Your task to perform on an android device: turn notification dots on Image 0: 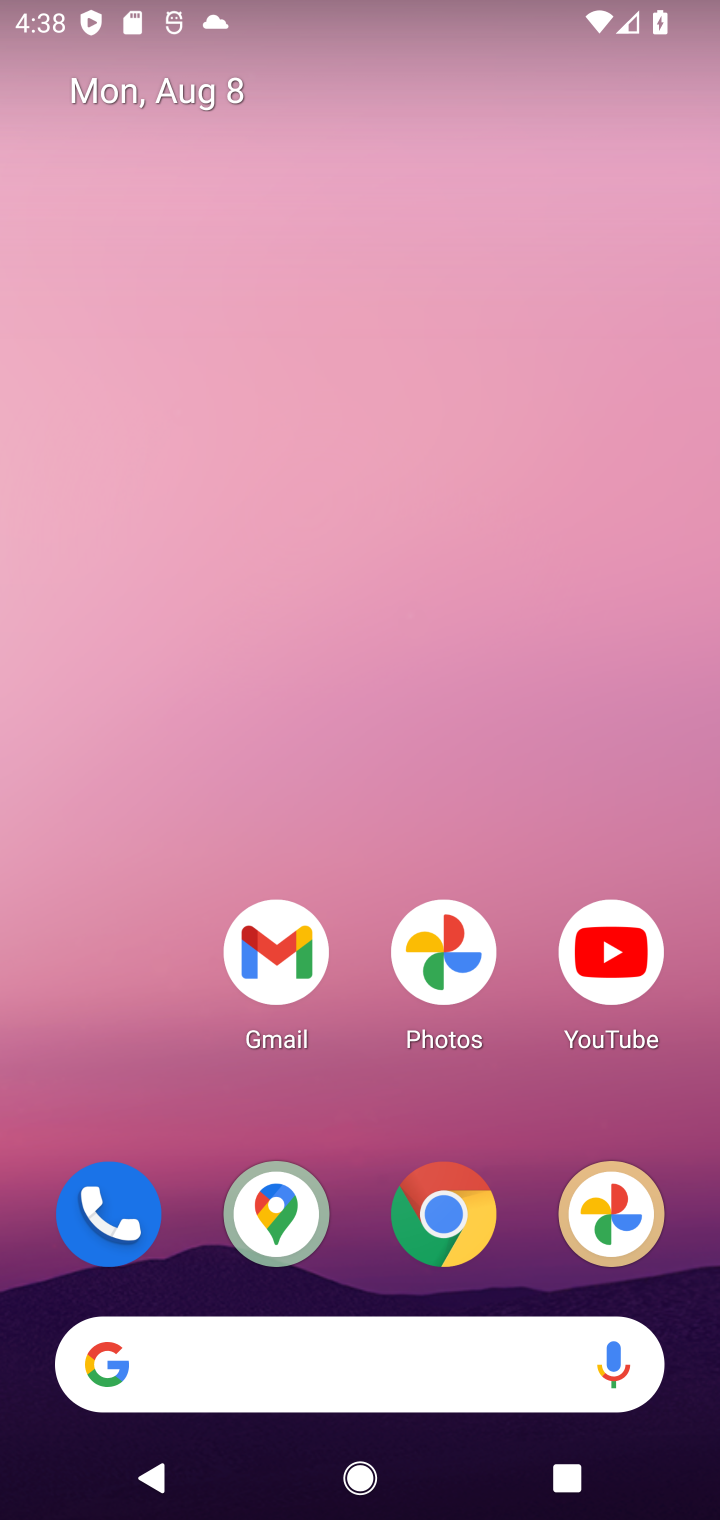
Step 0: drag from (369, 1053) to (371, 98)
Your task to perform on an android device: turn notification dots on Image 1: 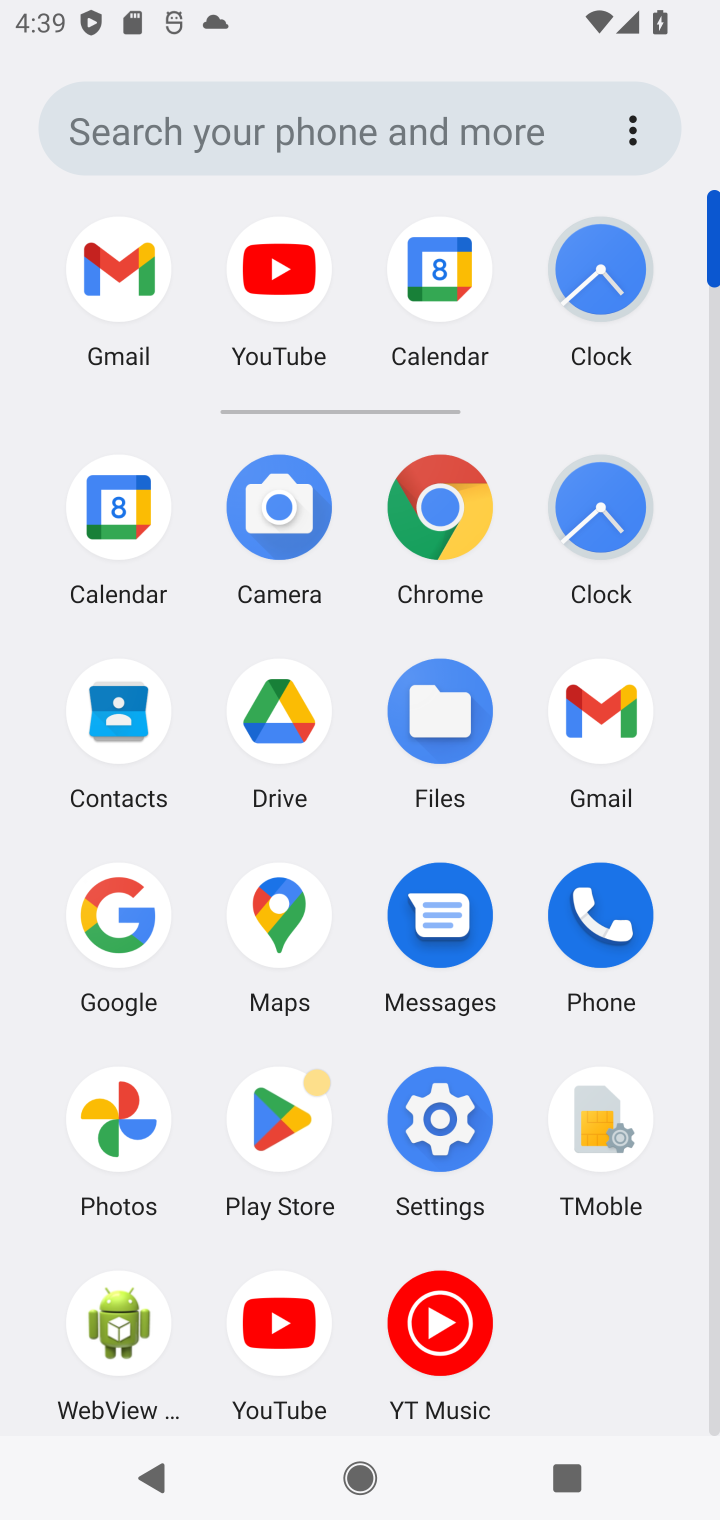
Step 1: click (442, 1129)
Your task to perform on an android device: turn notification dots on Image 2: 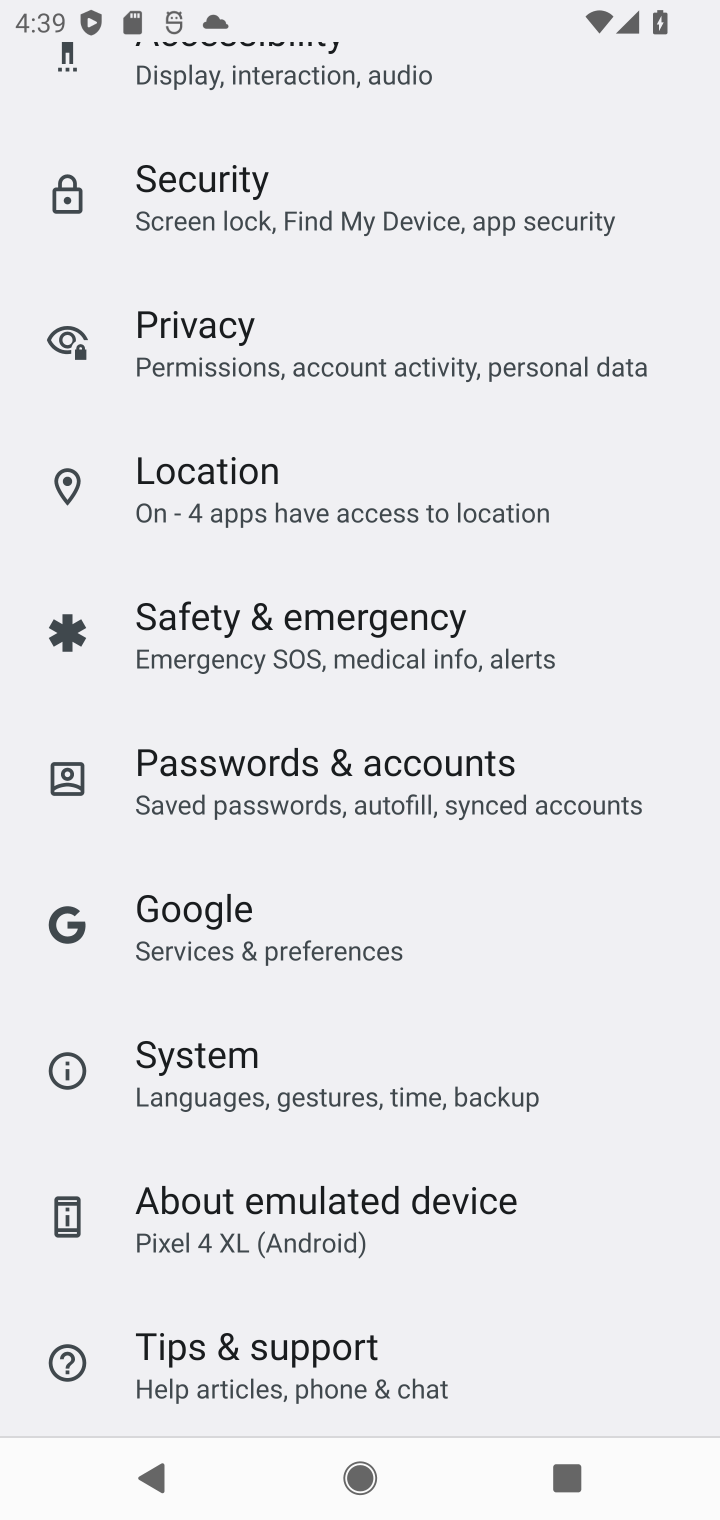
Step 2: drag from (272, 356) to (272, 1274)
Your task to perform on an android device: turn notification dots on Image 3: 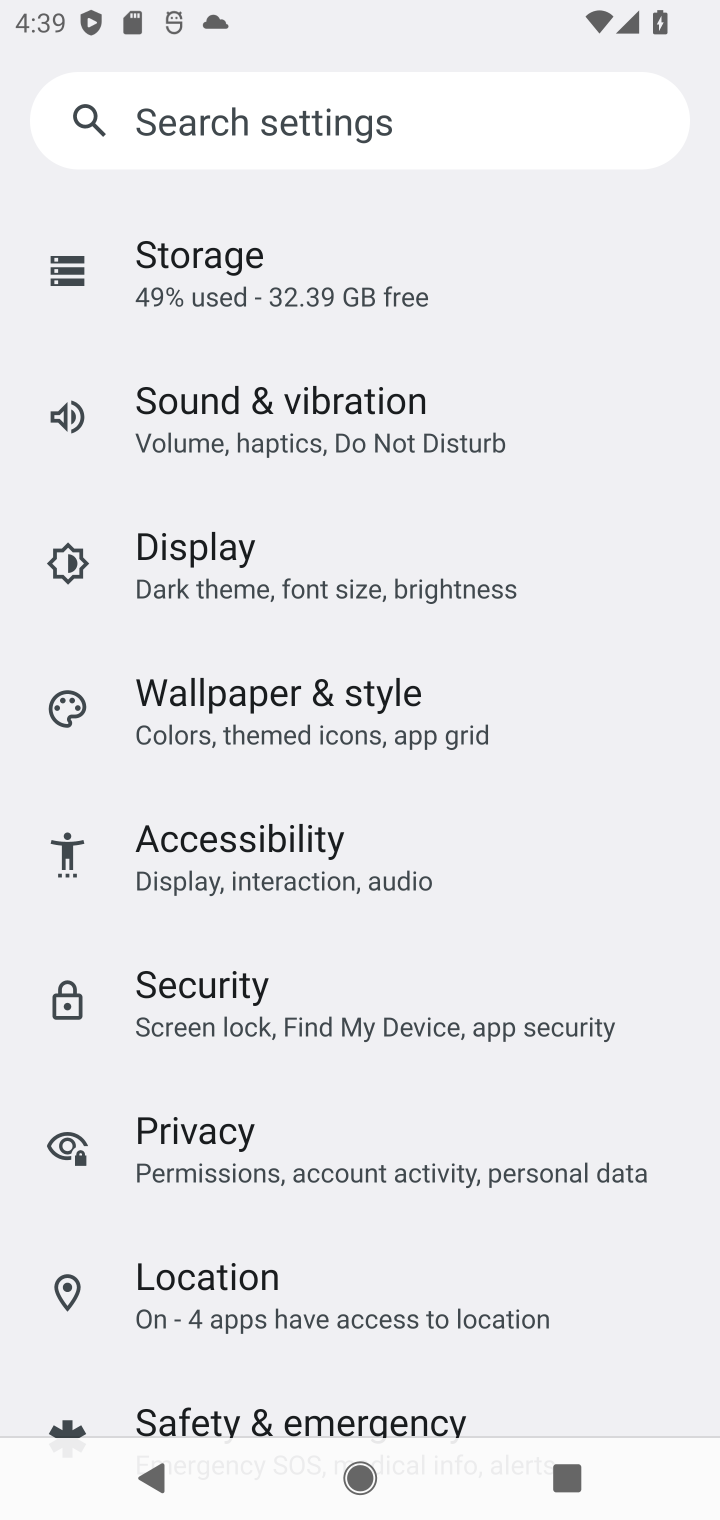
Step 3: drag from (241, 279) to (283, 1199)
Your task to perform on an android device: turn notification dots on Image 4: 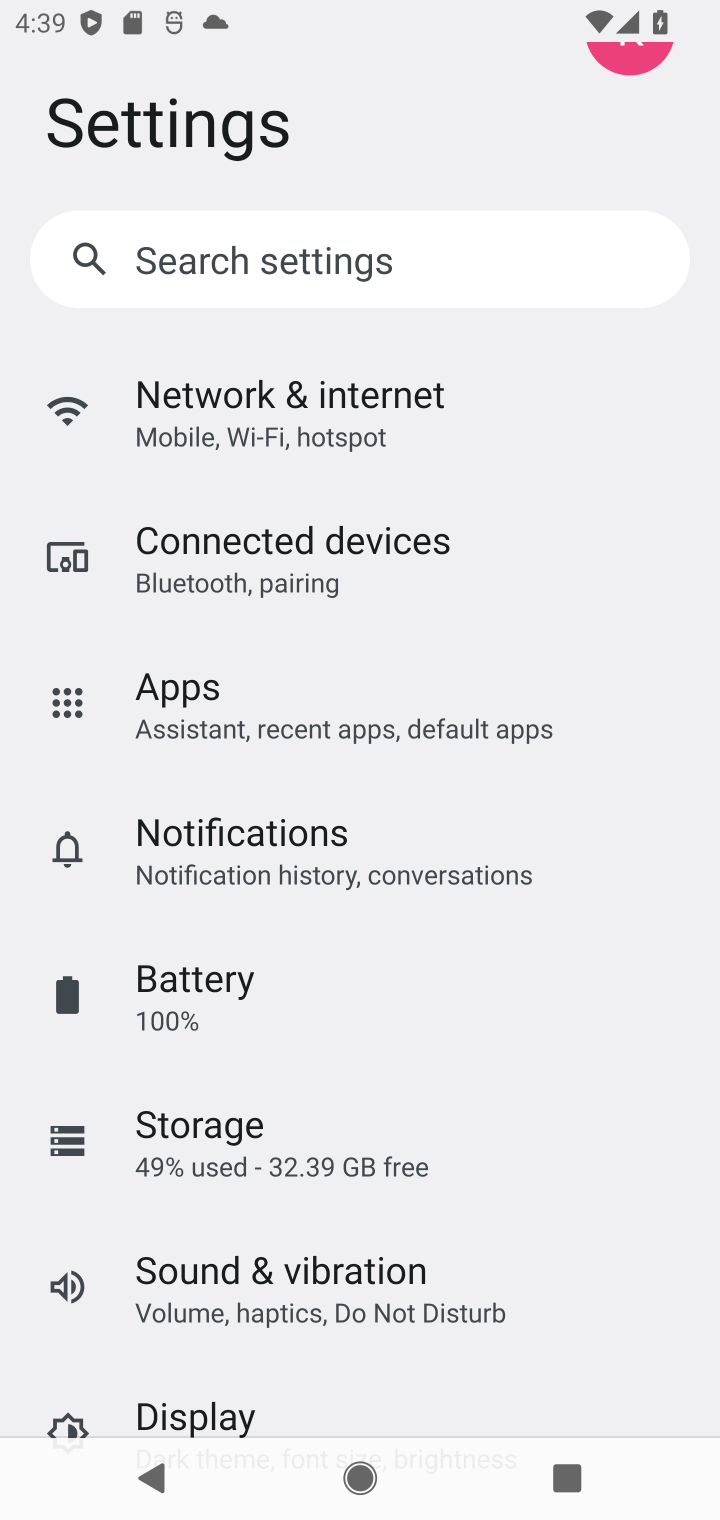
Step 4: click (280, 850)
Your task to perform on an android device: turn notification dots on Image 5: 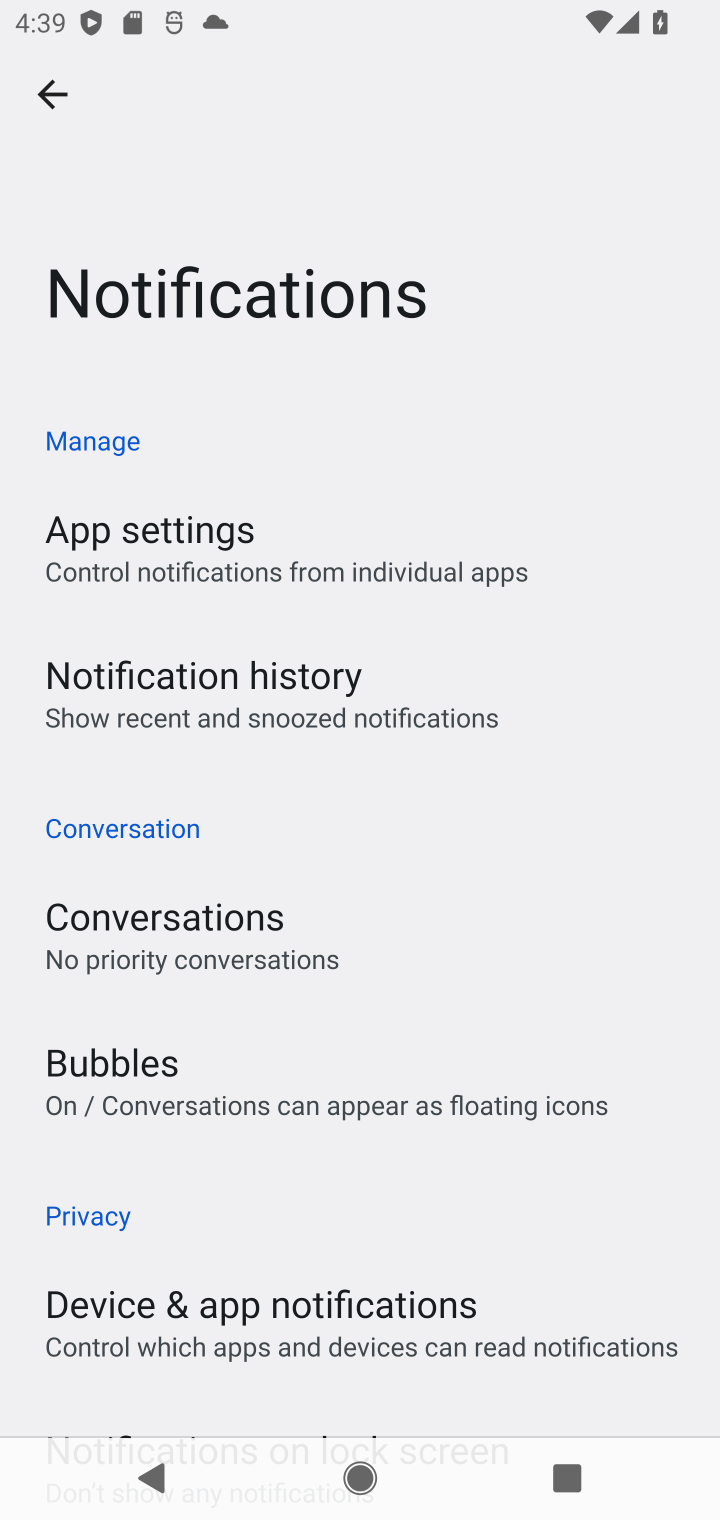
Step 5: task complete